Your task to perform on an android device: When is my next meeting? Image 0: 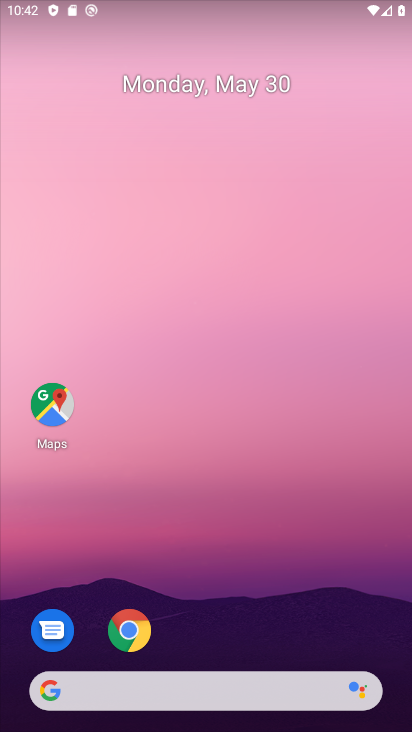
Step 0: drag from (201, 600) to (239, 127)
Your task to perform on an android device: When is my next meeting? Image 1: 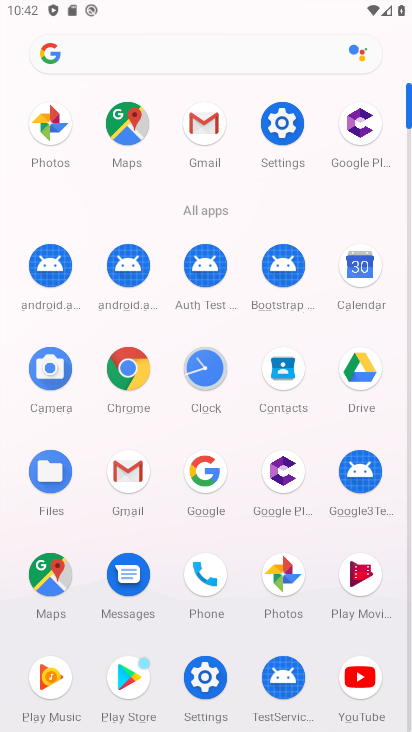
Step 1: click (360, 272)
Your task to perform on an android device: When is my next meeting? Image 2: 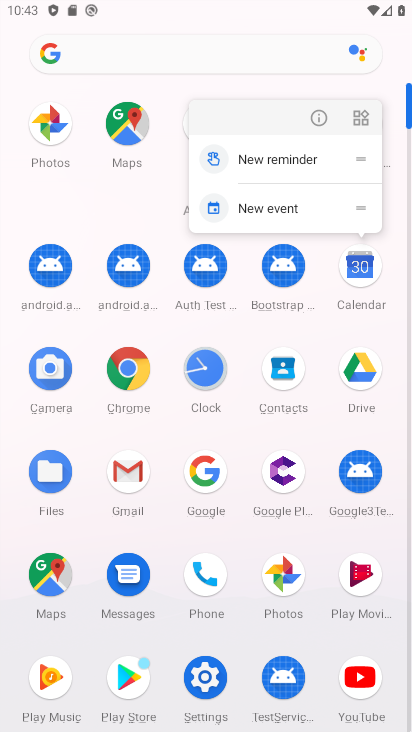
Step 2: click (361, 269)
Your task to perform on an android device: When is my next meeting? Image 3: 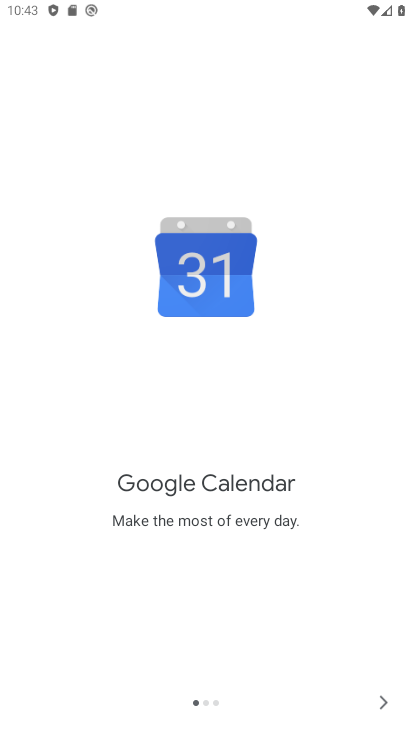
Step 3: click (378, 702)
Your task to perform on an android device: When is my next meeting? Image 4: 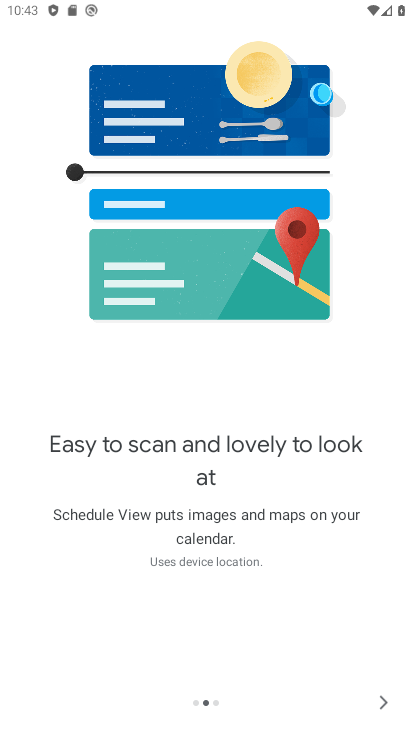
Step 4: click (378, 702)
Your task to perform on an android device: When is my next meeting? Image 5: 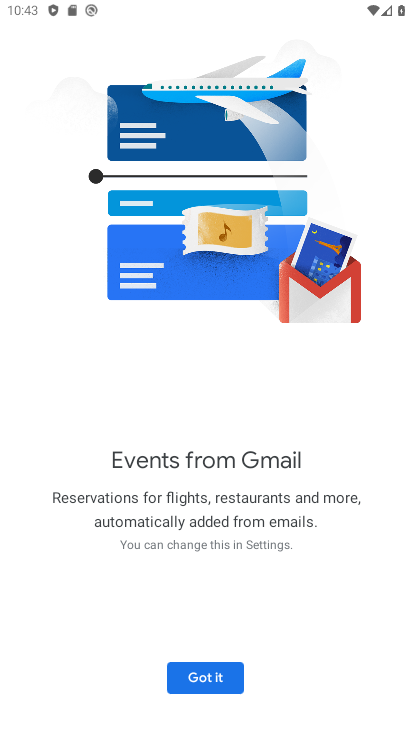
Step 5: click (214, 680)
Your task to perform on an android device: When is my next meeting? Image 6: 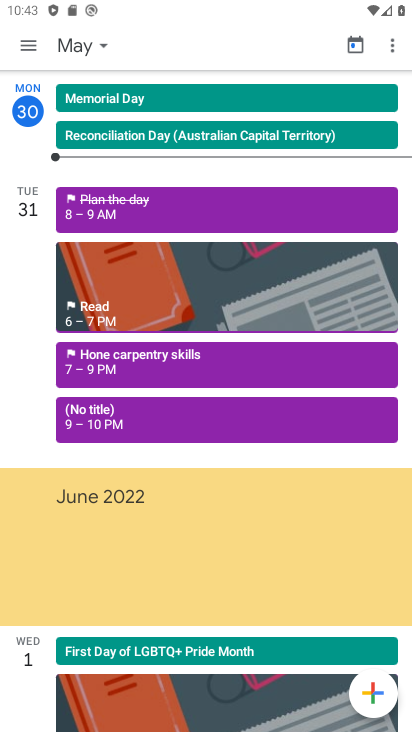
Step 6: click (92, 44)
Your task to perform on an android device: When is my next meeting? Image 7: 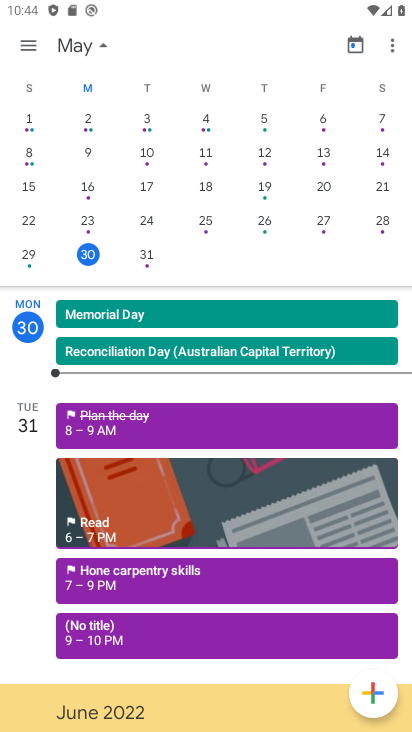
Step 7: click (139, 260)
Your task to perform on an android device: When is my next meeting? Image 8: 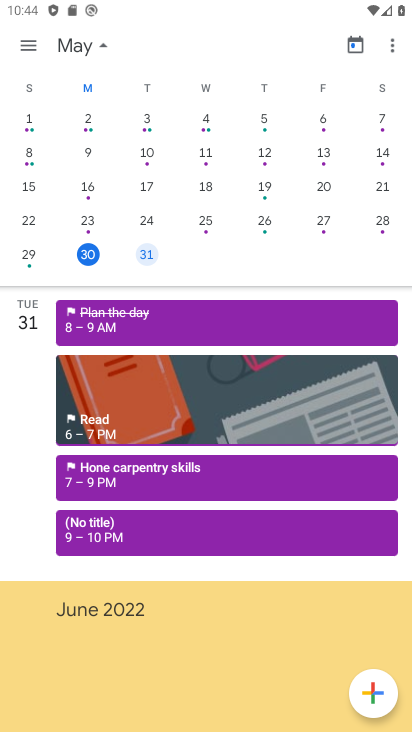
Step 8: task complete